Your task to perform on an android device: See recent photos Image 0: 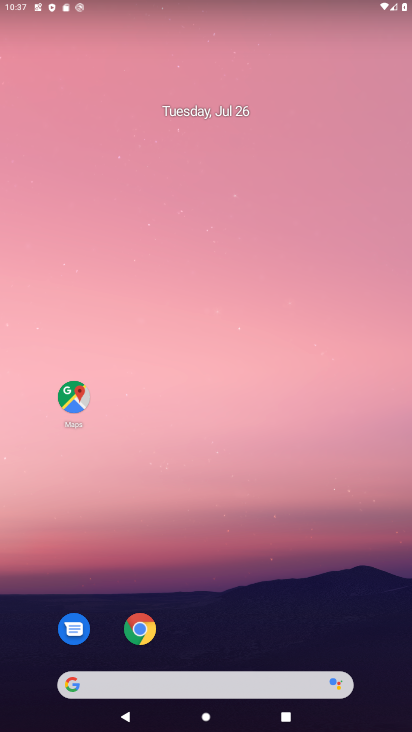
Step 0: drag from (320, 656) to (189, 57)
Your task to perform on an android device: See recent photos Image 1: 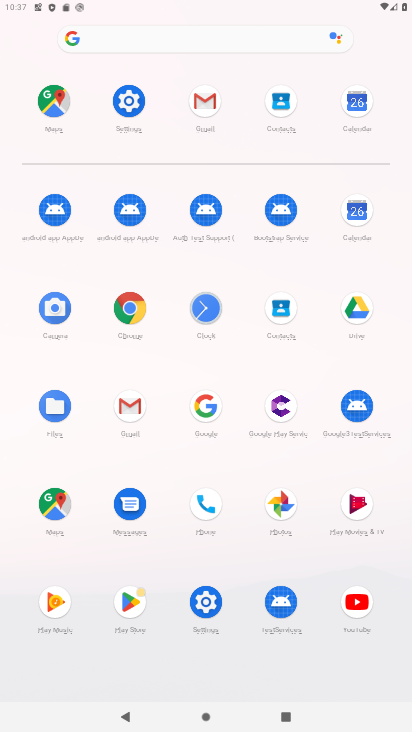
Step 1: click (268, 506)
Your task to perform on an android device: See recent photos Image 2: 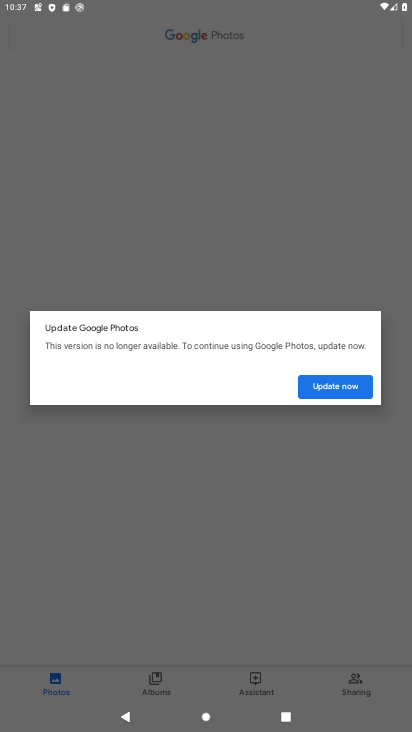
Step 2: task complete